Your task to perform on an android device: Go to Amazon Image 0: 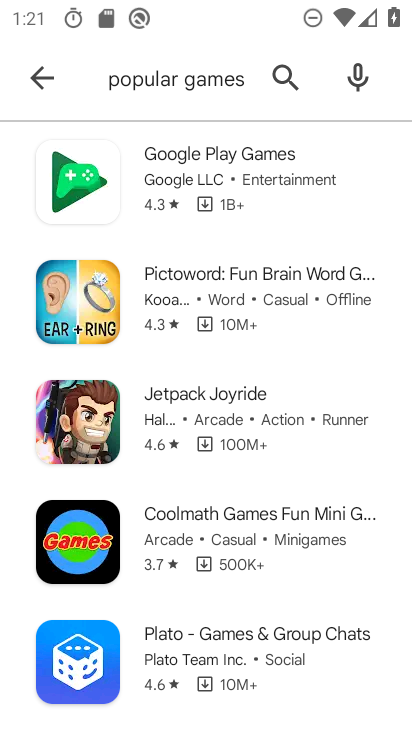
Step 0: press home button
Your task to perform on an android device: Go to Amazon Image 1: 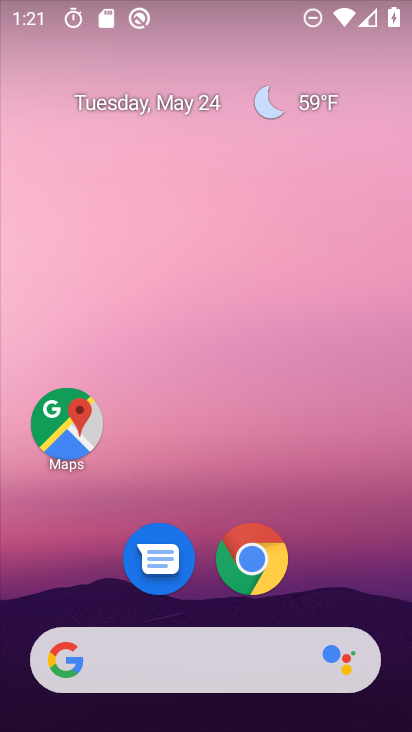
Step 1: drag from (402, 710) to (282, 94)
Your task to perform on an android device: Go to Amazon Image 2: 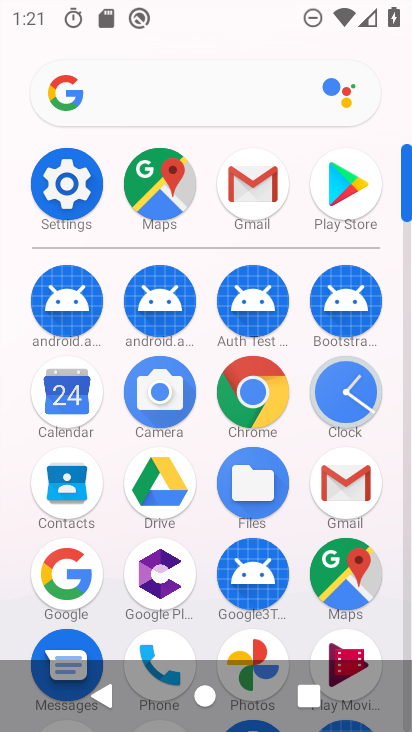
Step 2: click (260, 392)
Your task to perform on an android device: Go to Amazon Image 3: 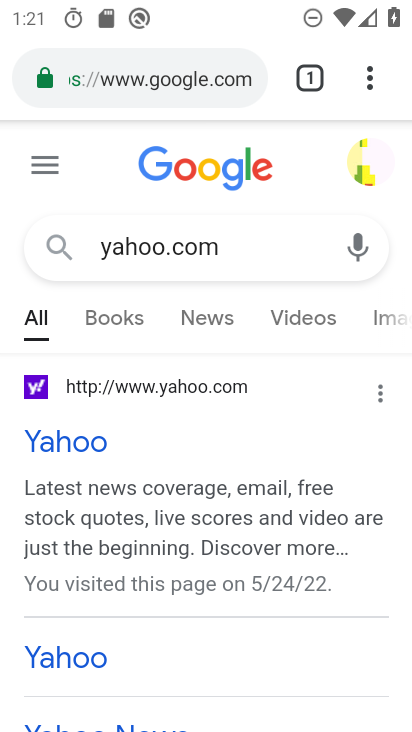
Step 3: click (369, 74)
Your task to perform on an android device: Go to Amazon Image 4: 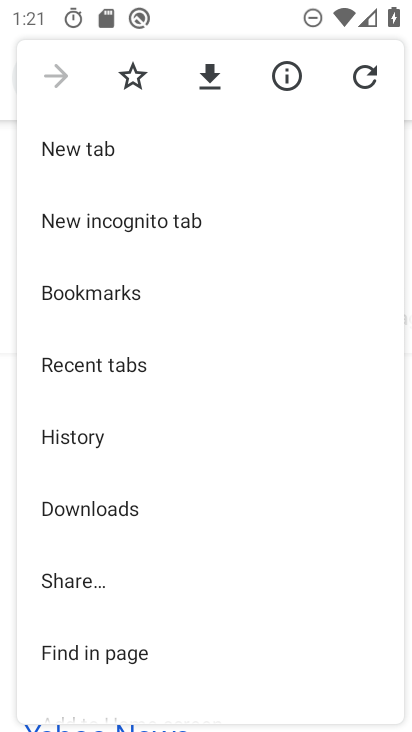
Step 4: press back button
Your task to perform on an android device: Go to Amazon Image 5: 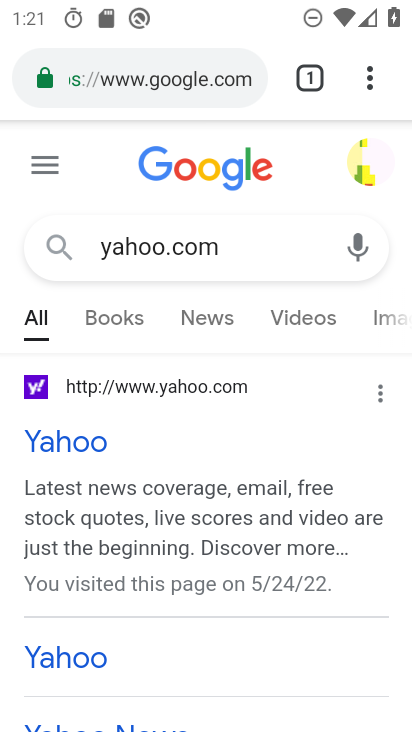
Step 5: press back button
Your task to perform on an android device: Go to Amazon Image 6: 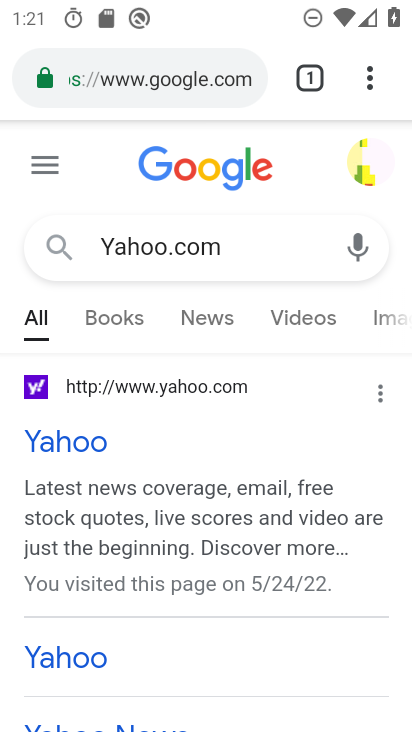
Step 6: click (258, 72)
Your task to perform on an android device: Go to Amazon Image 7: 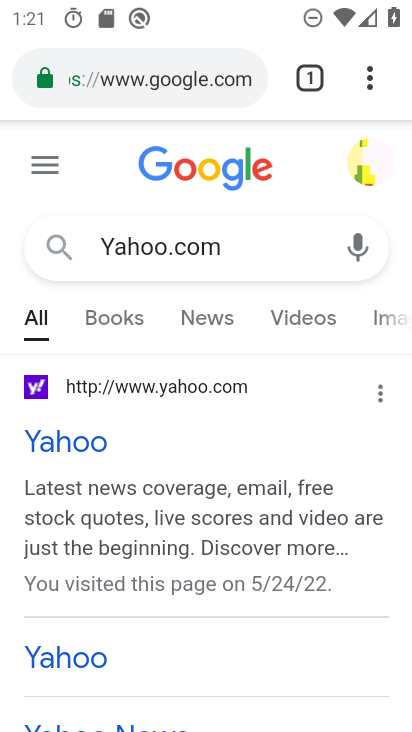
Step 7: click (244, 77)
Your task to perform on an android device: Go to Amazon Image 8: 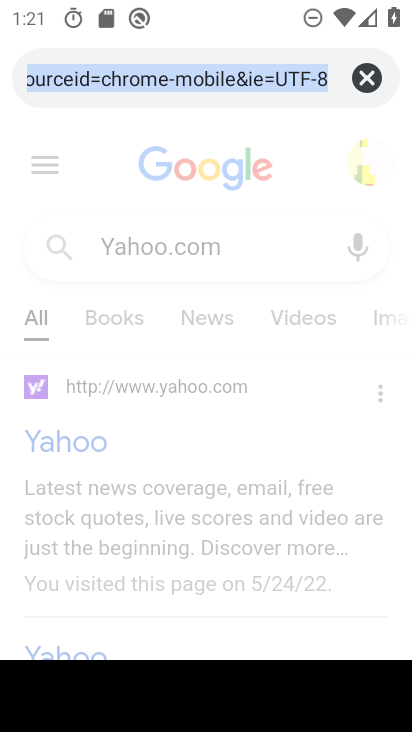
Step 8: click (356, 80)
Your task to perform on an android device: Go to Amazon Image 9: 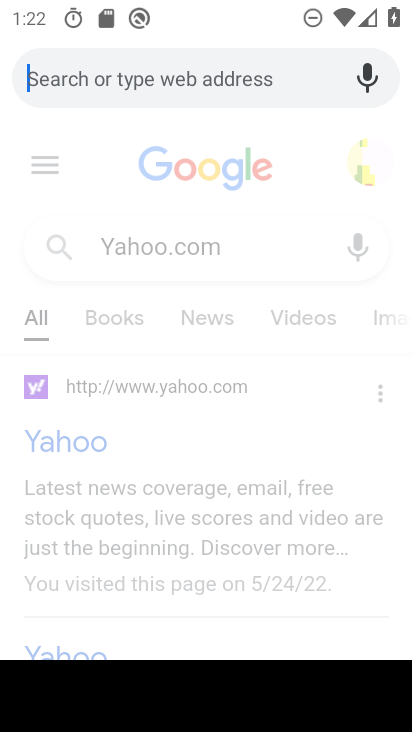
Step 9: type "Amazon"
Your task to perform on an android device: Go to Amazon Image 10: 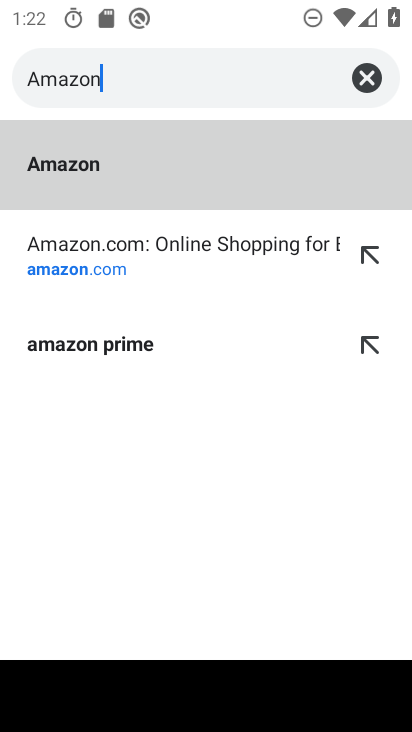
Step 10: click (53, 166)
Your task to perform on an android device: Go to Amazon Image 11: 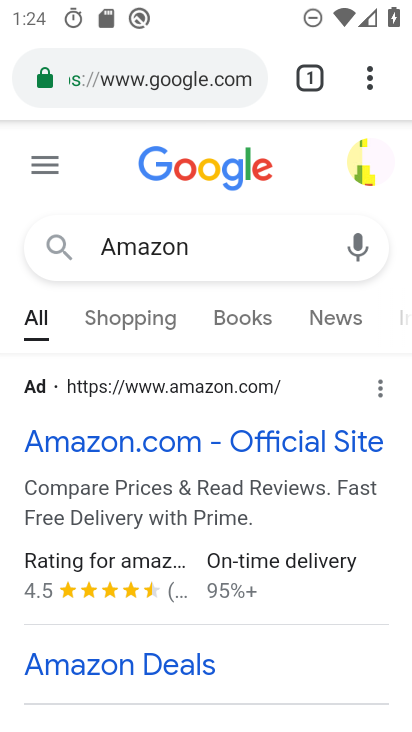
Step 11: task complete